Your task to perform on an android device: Show me popular videos on Youtube Image 0: 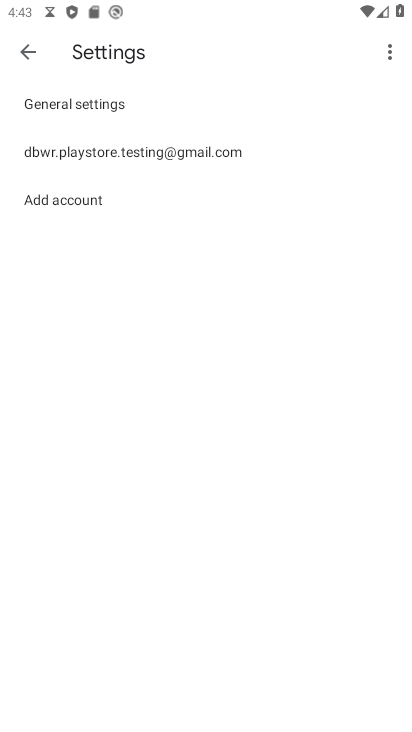
Step 0: press home button
Your task to perform on an android device: Show me popular videos on Youtube Image 1: 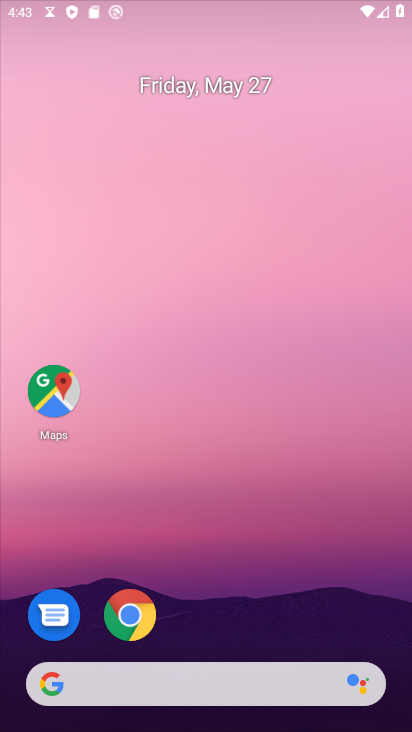
Step 1: drag from (316, 618) to (153, 31)
Your task to perform on an android device: Show me popular videos on Youtube Image 2: 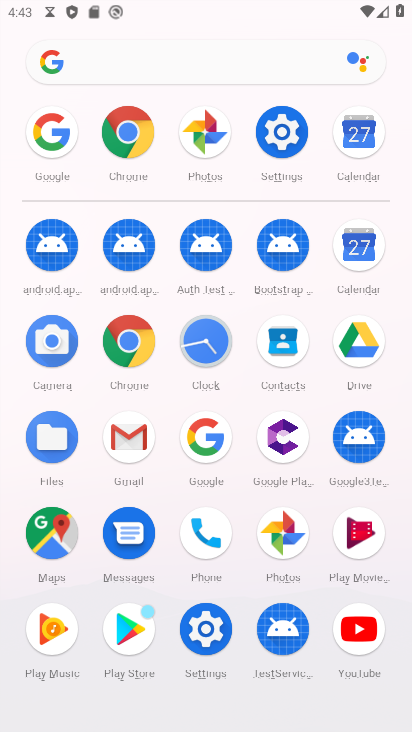
Step 2: click (359, 641)
Your task to perform on an android device: Show me popular videos on Youtube Image 3: 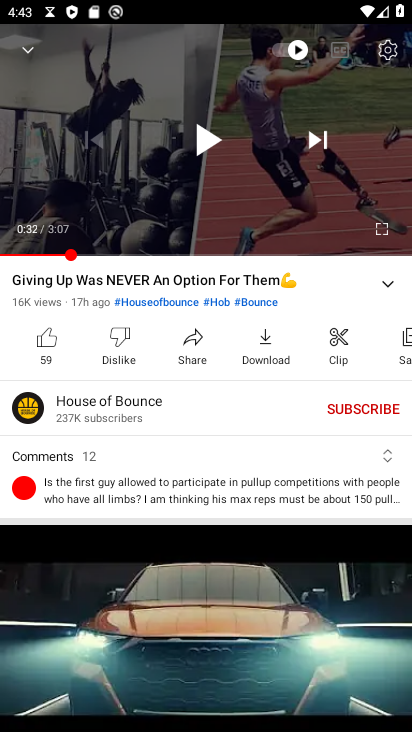
Step 3: press back button
Your task to perform on an android device: Show me popular videos on Youtube Image 4: 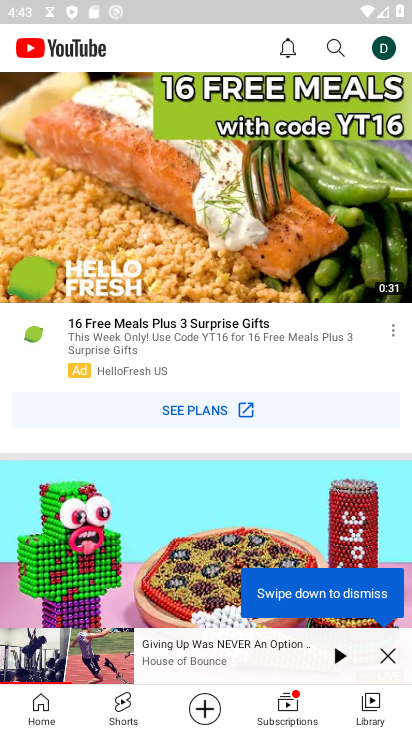
Step 4: drag from (124, 112) to (112, 496)
Your task to perform on an android device: Show me popular videos on Youtube Image 5: 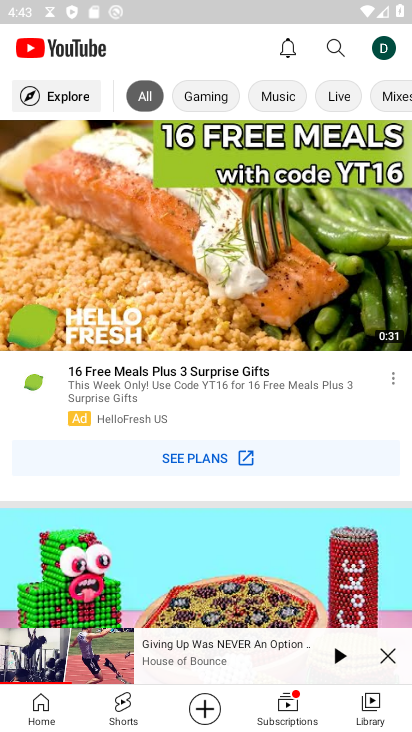
Step 5: click (52, 95)
Your task to perform on an android device: Show me popular videos on Youtube Image 6: 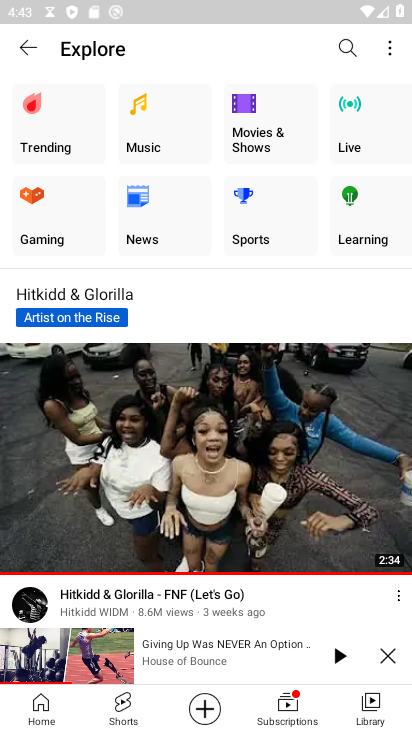
Step 6: click (60, 104)
Your task to perform on an android device: Show me popular videos on Youtube Image 7: 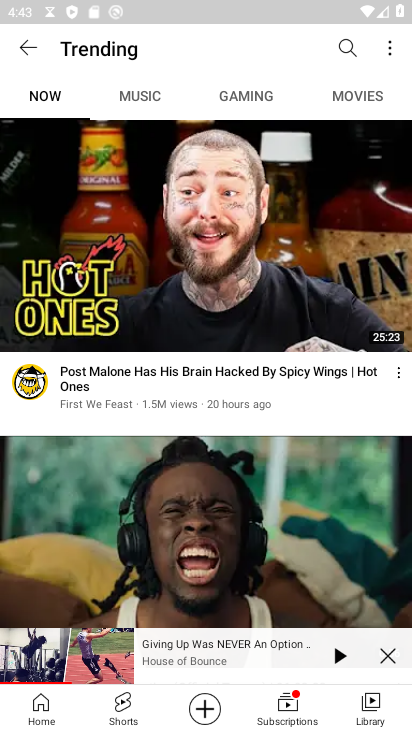
Step 7: task complete